Your task to perform on an android device: open app "Lyft - Rideshare, Bikes, Scooters & Transit" Image 0: 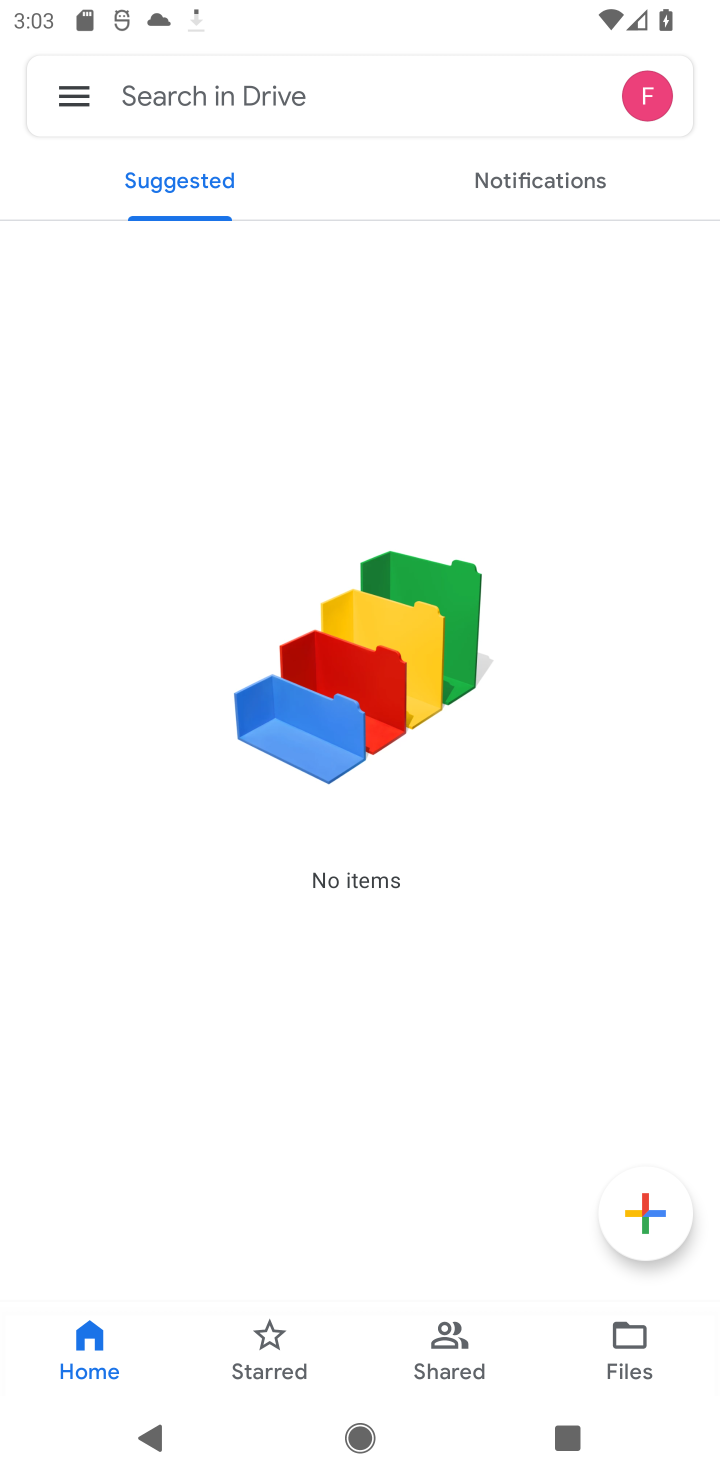
Step 0: press home button
Your task to perform on an android device: open app "Lyft - Rideshare, Bikes, Scooters & Transit" Image 1: 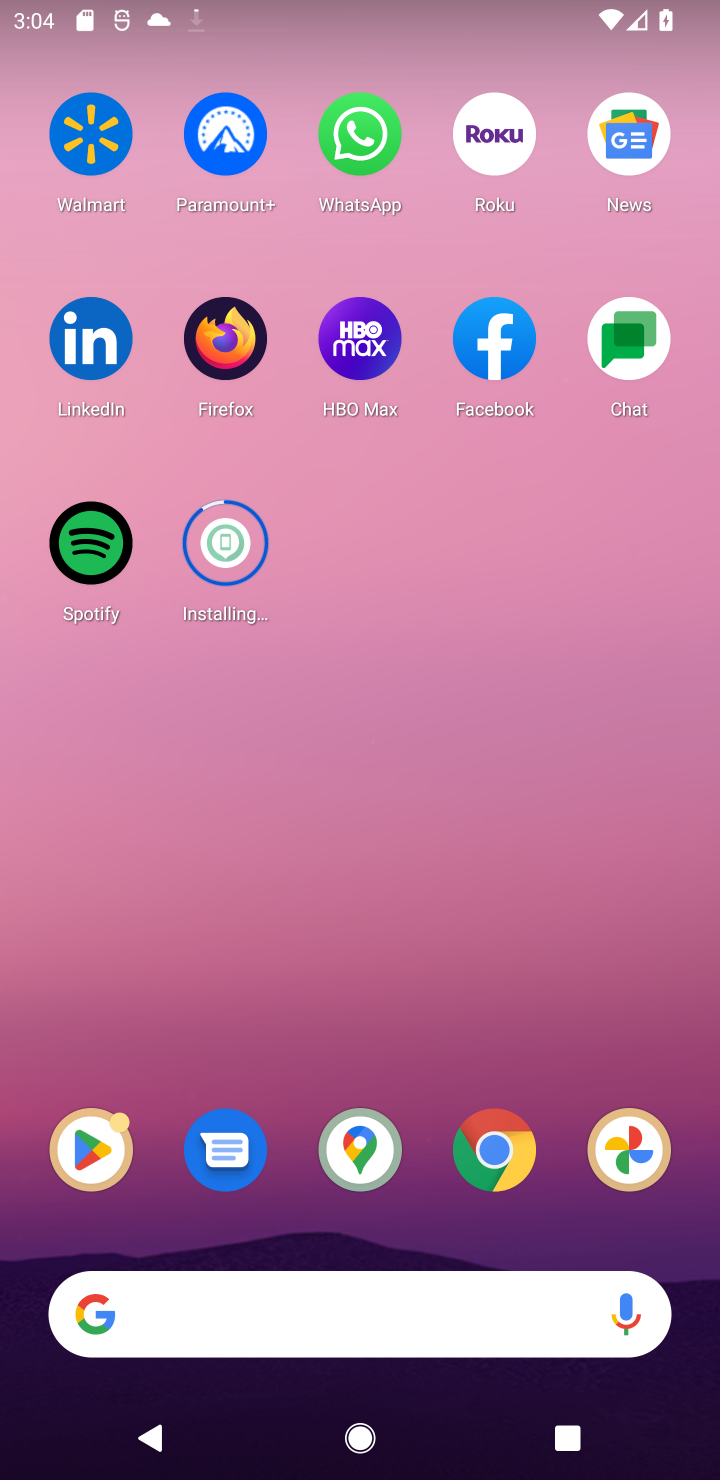
Step 1: click (89, 1135)
Your task to perform on an android device: open app "Lyft - Rideshare, Bikes, Scooters & Transit" Image 2: 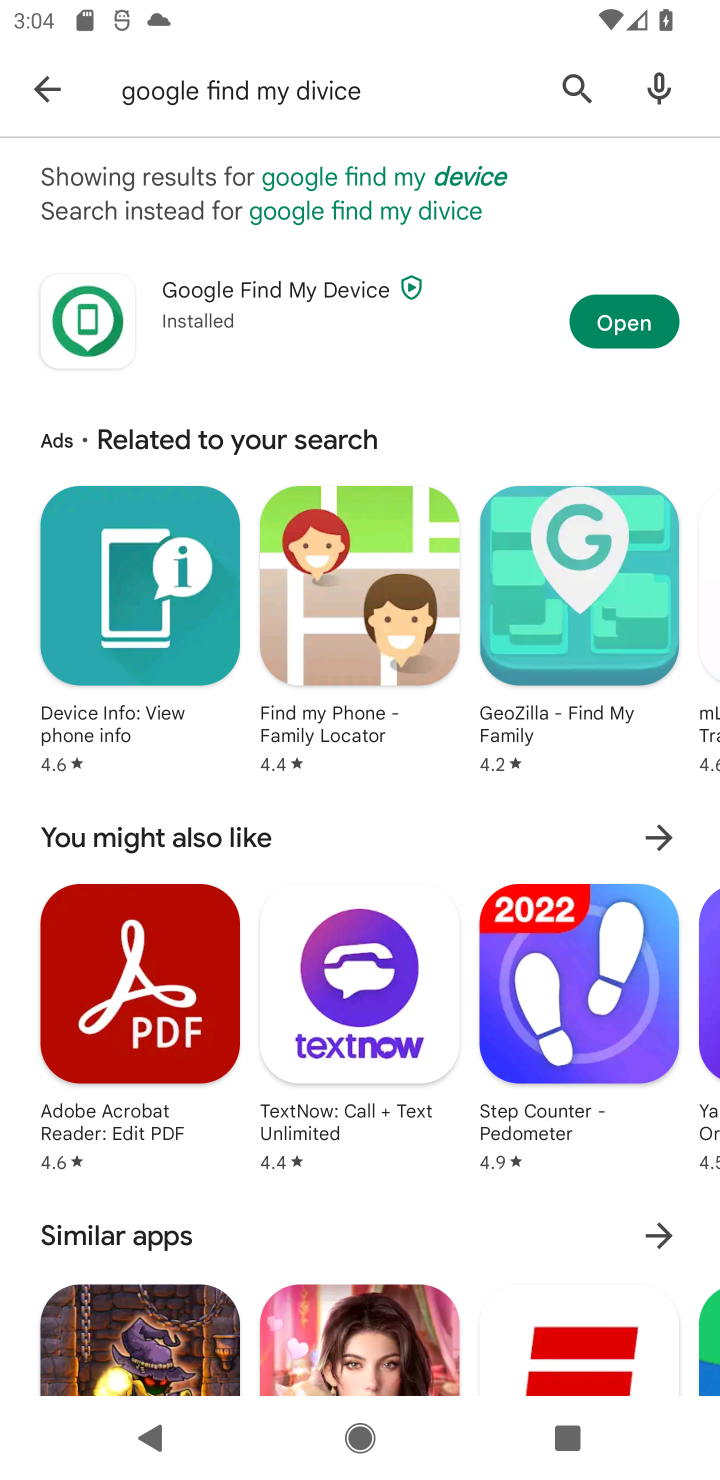
Step 2: click (586, 100)
Your task to perform on an android device: open app "Lyft - Rideshare, Bikes, Scooters & Transit" Image 3: 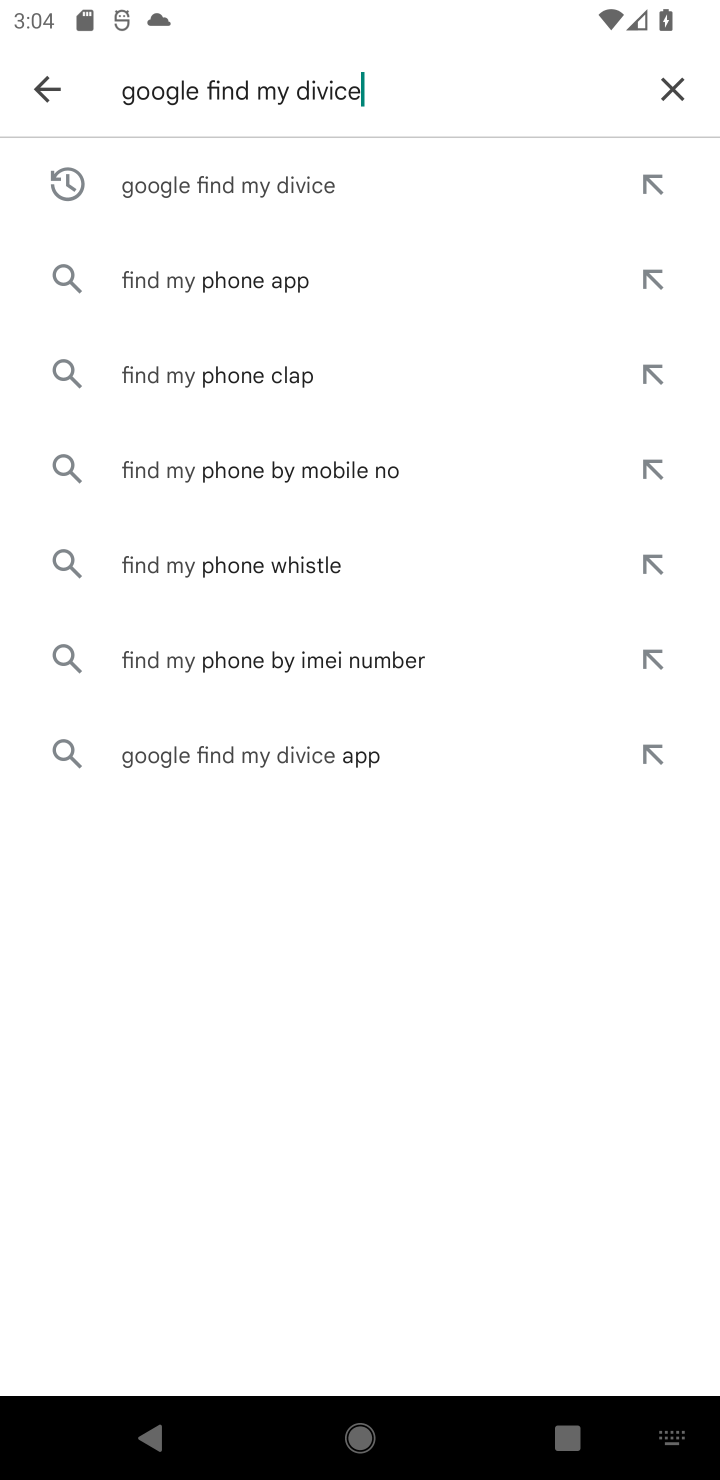
Step 3: click (669, 91)
Your task to perform on an android device: open app "Lyft - Rideshare, Bikes, Scooters & Transit" Image 4: 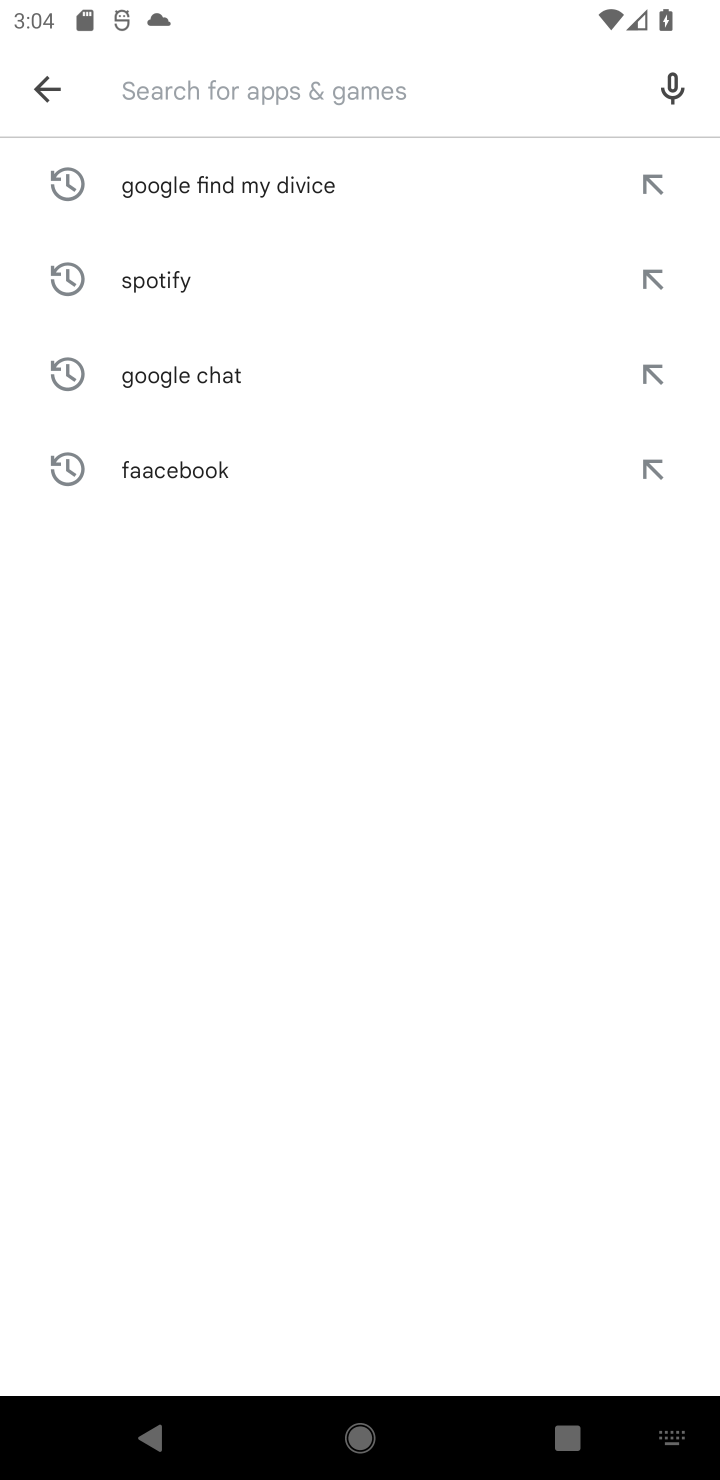
Step 4: type "lyft"
Your task to perform on an android device: open app "Lyft - Rideshare, Bikes, Scooters & Transit" Image 5: 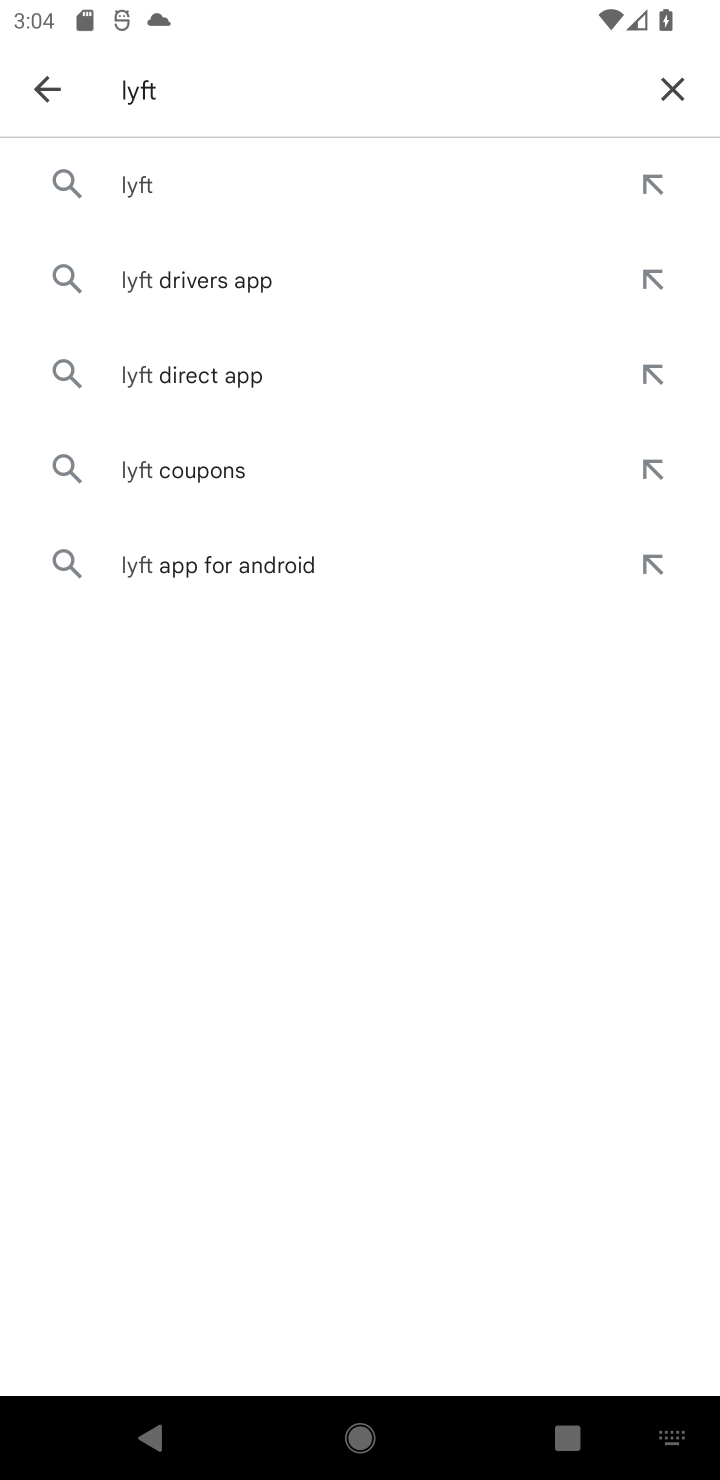
Step 5: click (327, 187)
Your task to perform on an android device: open app "Lyft - Rideshare, Bikes, Scooters & Transit" Image 6: 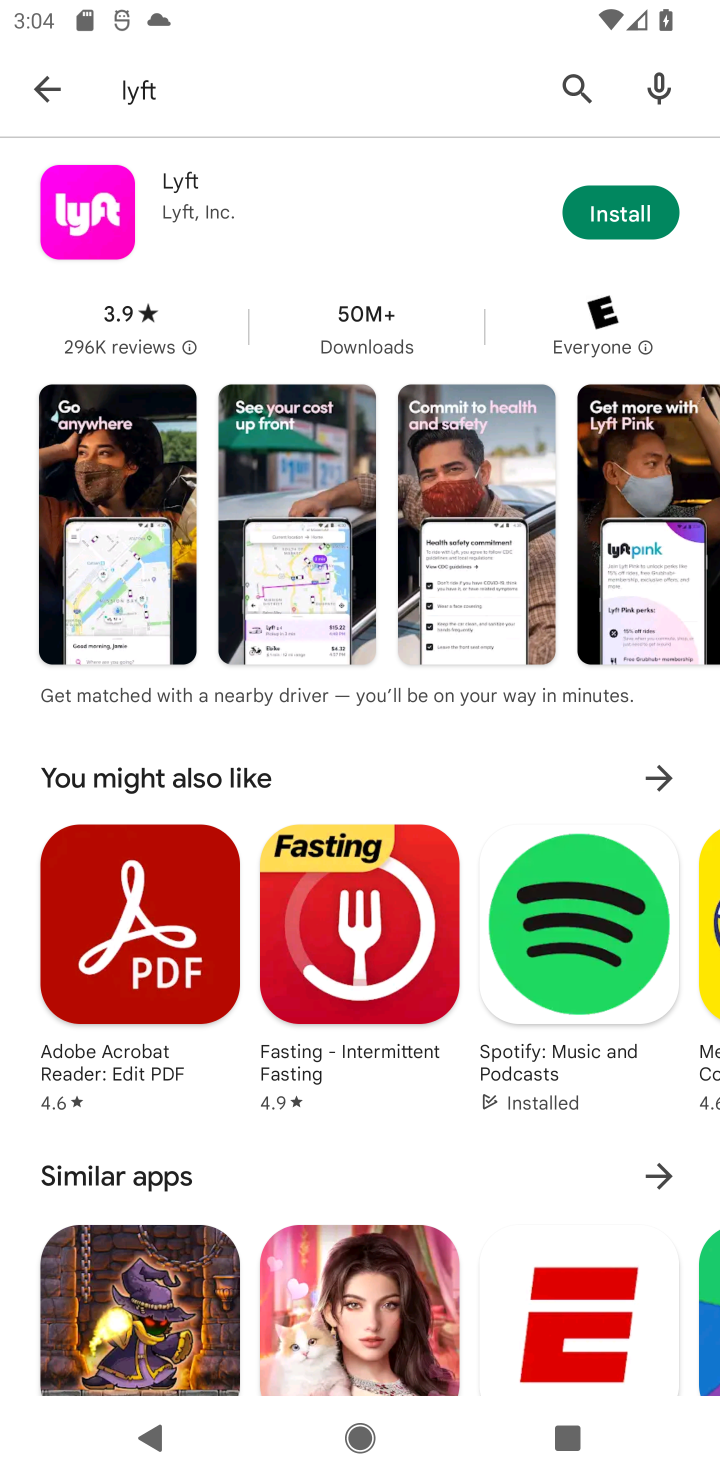
Step 6: click (594, 219)
Your task to perform on an android device: open app "Lyft - Rideshare, Bikes, Scooters & Transit" Image 7: 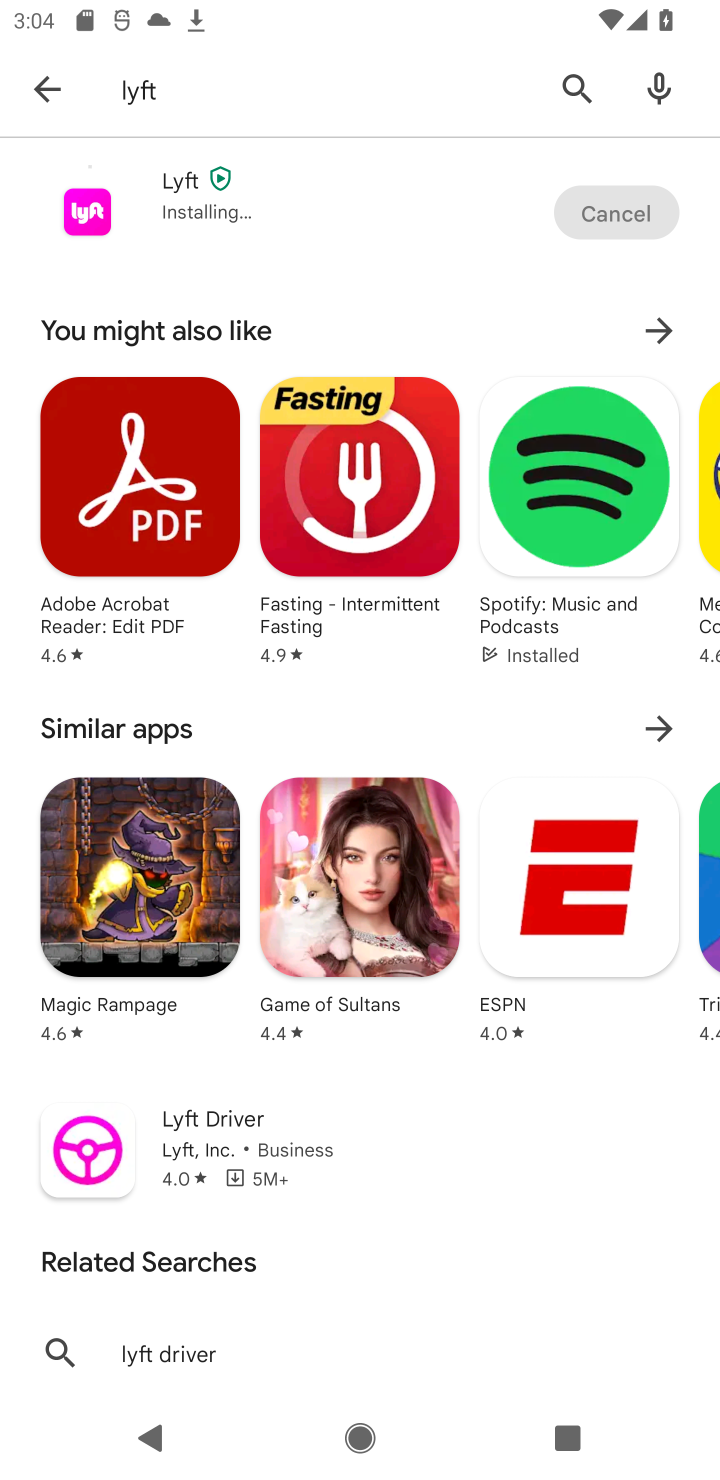
Step 7: task complete